Your task to perform on an android device: Go to Yahoo.com Image 0: 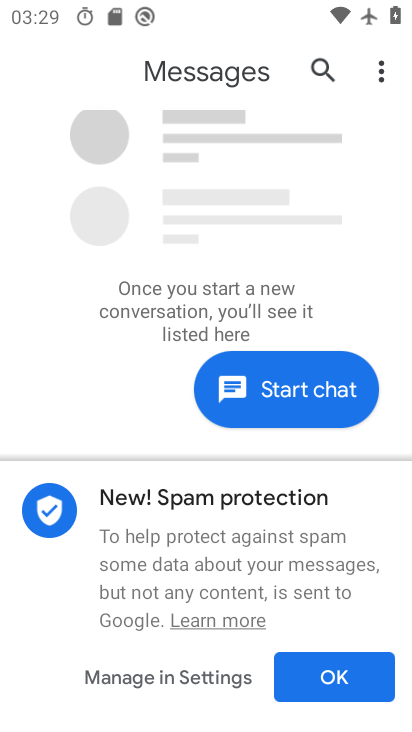
Step 0: press home button
Your task to perform on an android device: Go to Yahoo.com Image 1: 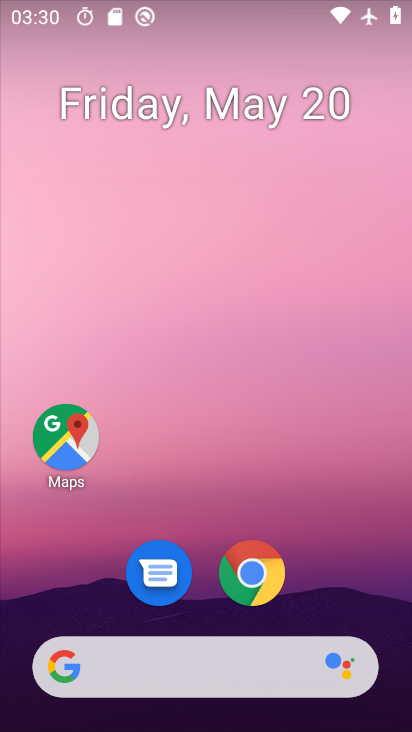
Step 1: click (230, 555)
Your task to perform on an android device: Go to Yahoo.com Image 2: 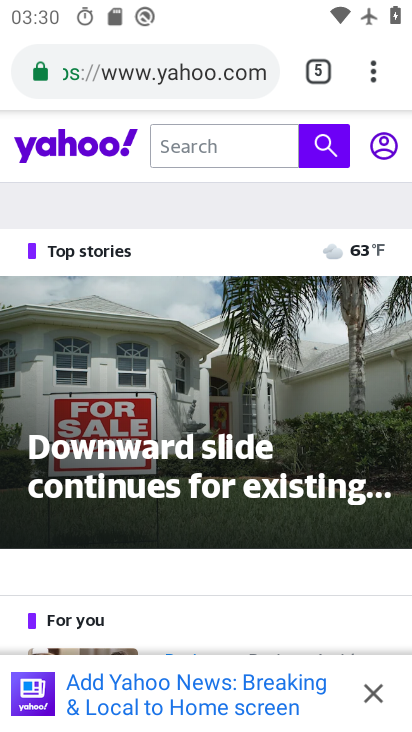
Step 2: task complete